Your task to perform on an android device: allow cookies in the chrome app Image 0: 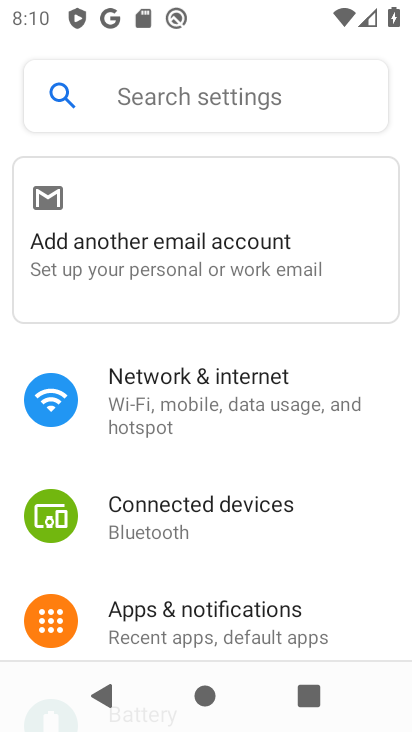
Step 0: press back button
Your task to perform on an android device: allow cookies in the chrome app Image 1: 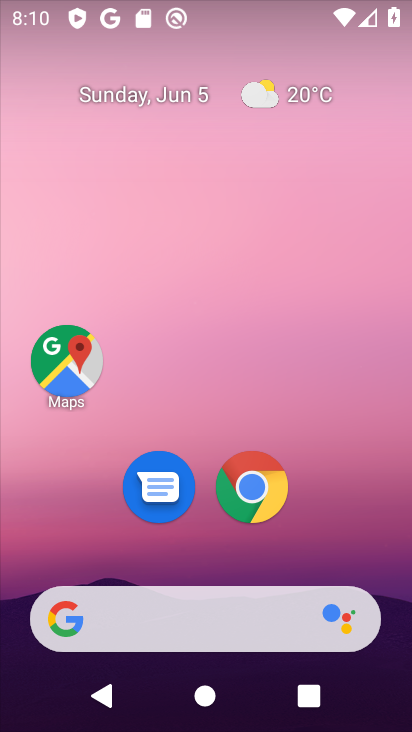
Step 1: click (250, 476)
Your task to perform on an android device: allow cookies in the chrome app Image 2: 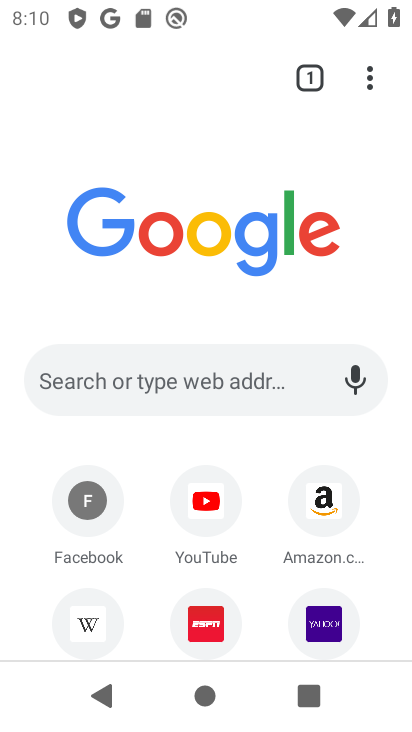
Step 2: drag from (364, 78) to (167, 530)
Your task to perform on an android device: allow cookies in the chrome app Image 3: 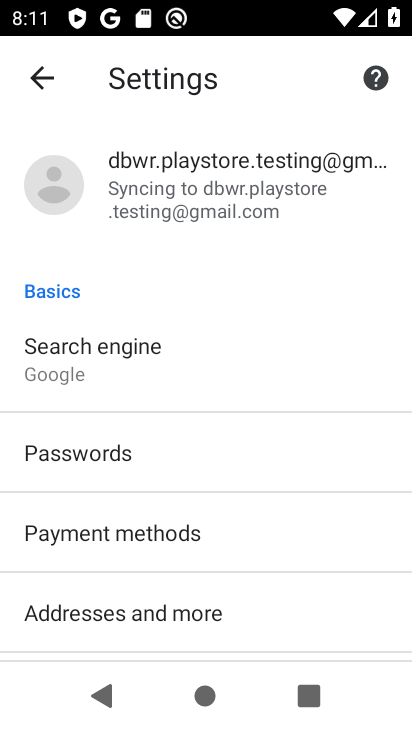
Step 3: drag from (191, 597) to (264, 81)
Your task to perform on an android device: allow cookies in the chrome app Image 4: 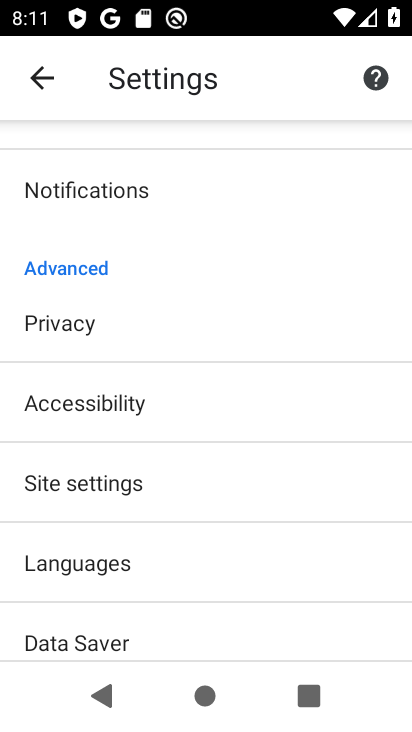
Step 4: click (119, 481)
Your task to perform on an android device: allow cookies in the chrome app Image 5: 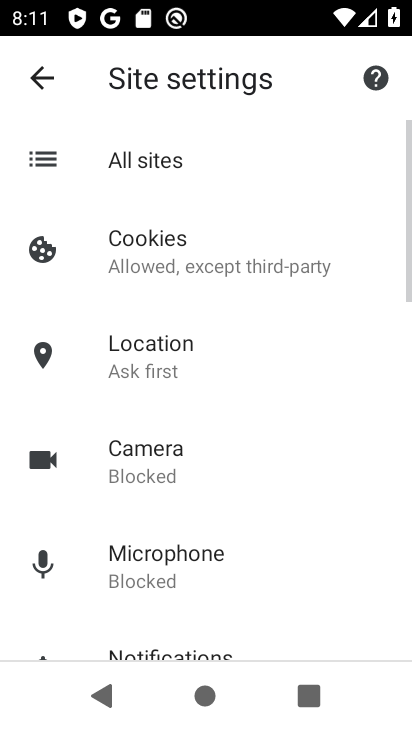
Step 5: click (120, 246)
Your task to perform on an android device: allow cookies in the chrome app Image 6: 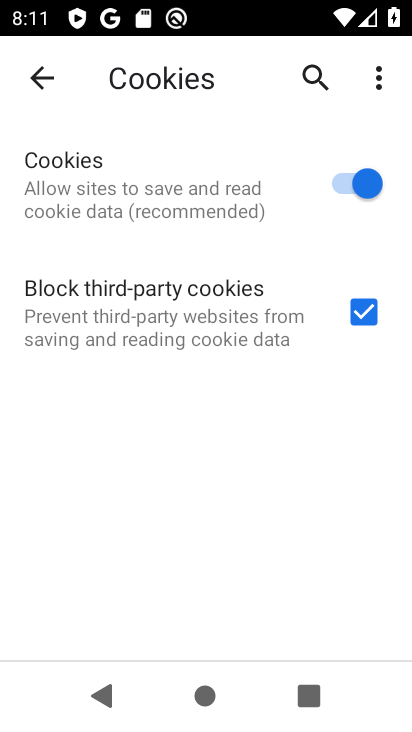
Step 6: task complete